Your task to perform on an android device: Open ESPN.com Image 0: 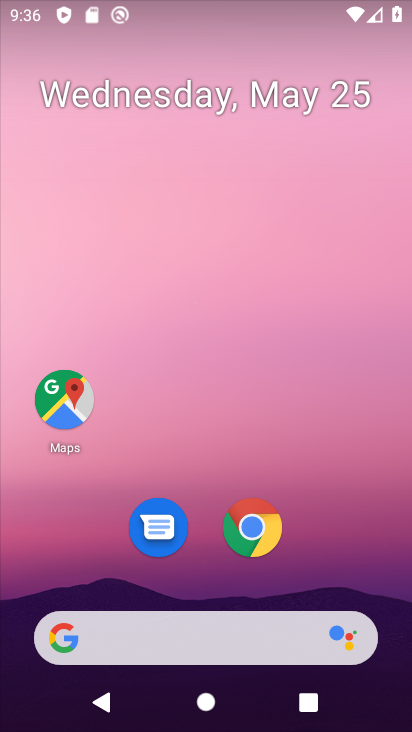
Step 0: click (252, 530)
Your task to perform on an android device: Open ESPN.com Image 1: 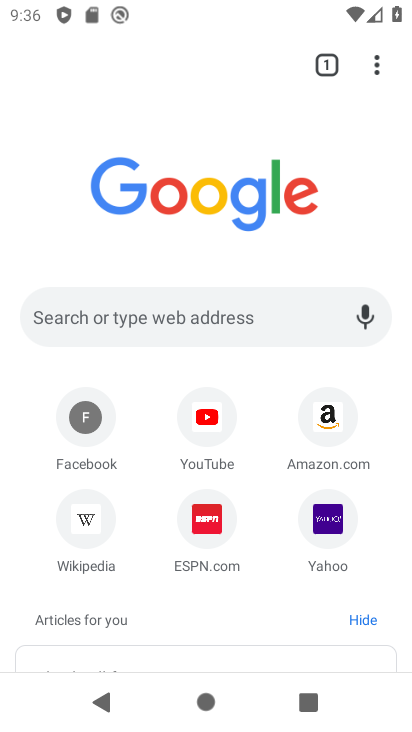
Step 1: click (252, 317)
Your task to perform on an android device: Open ESPN.com Image 2: 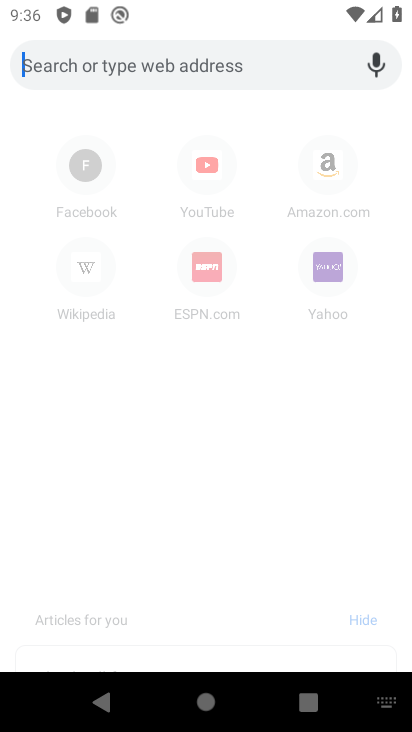
Step 2: type "ESPN.com"
Your task to perform on an android device: Open ESPN.com Image 3: 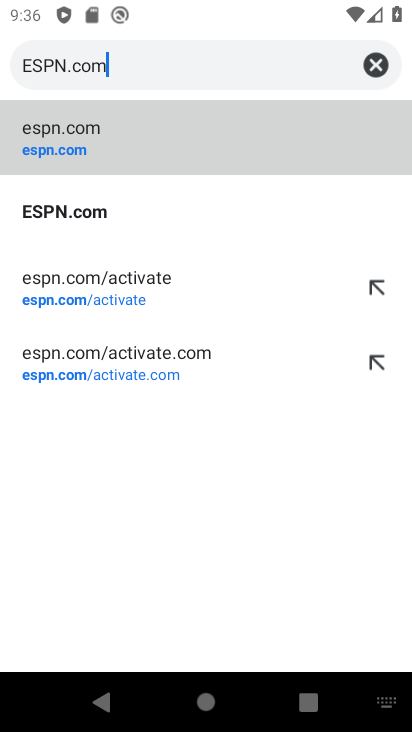
Step 3: type ""
Your task to perform on an android device: Open ESPN.com Image 4: 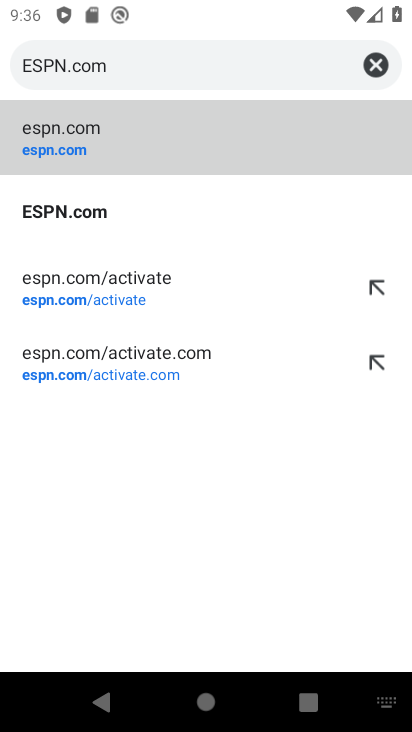
Step 4: click (98, 207)
Your task to perform on an android device: Open ESPN.com Image 5: 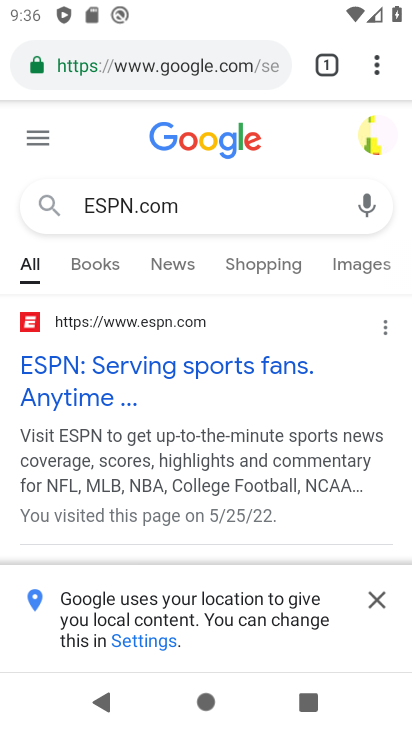
Step 5: click (190, 373)
Your task to perform on an android device: Open ESPN.com Image 6: 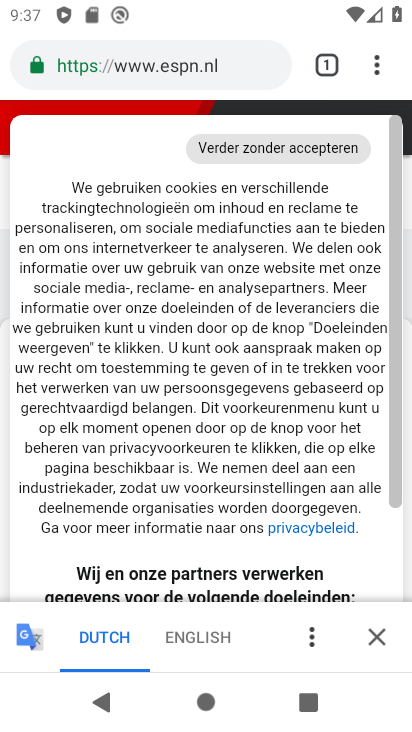
Step 6: task complete